Your task to perform on an android device: Open notification settings Image 0: 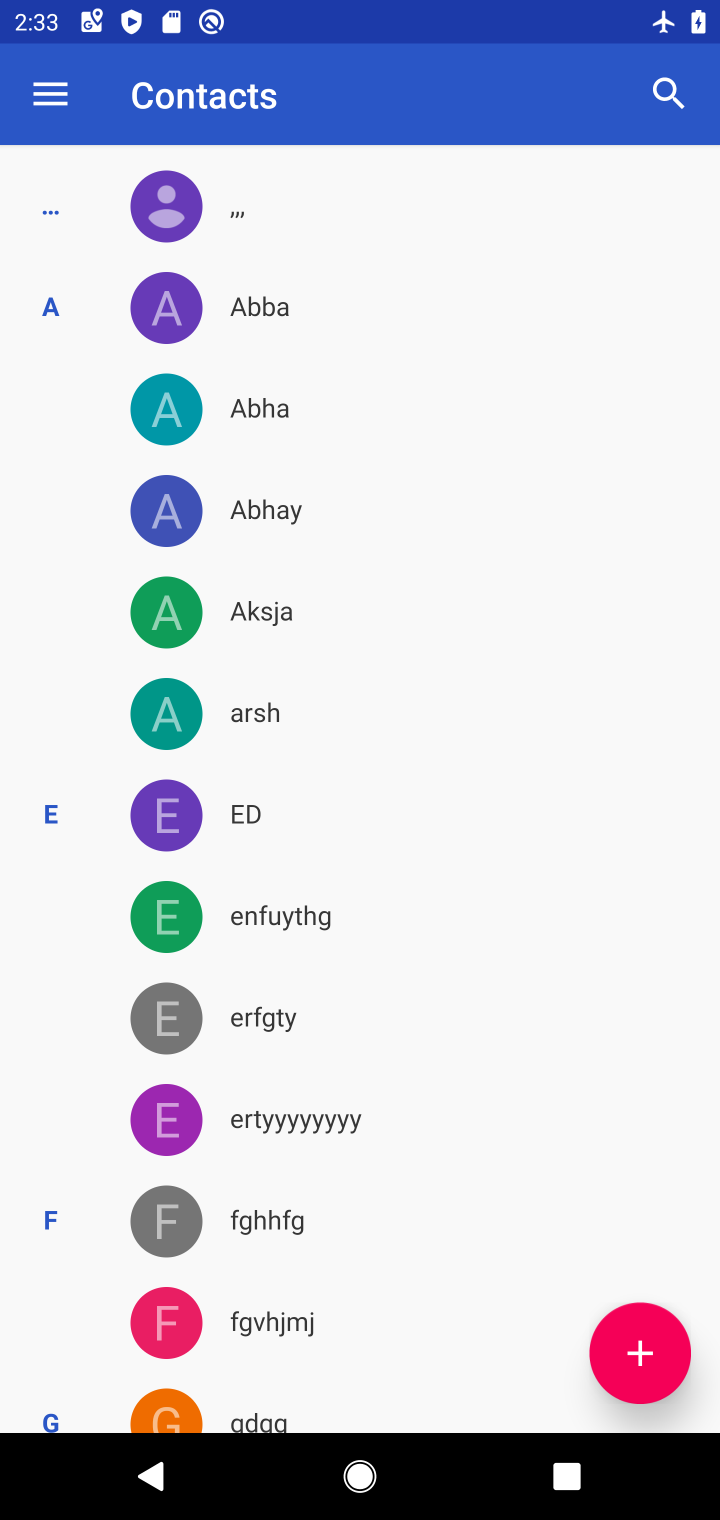
Step 0: press home button
Your task to perform on an android device: Open notification settings Image 1: 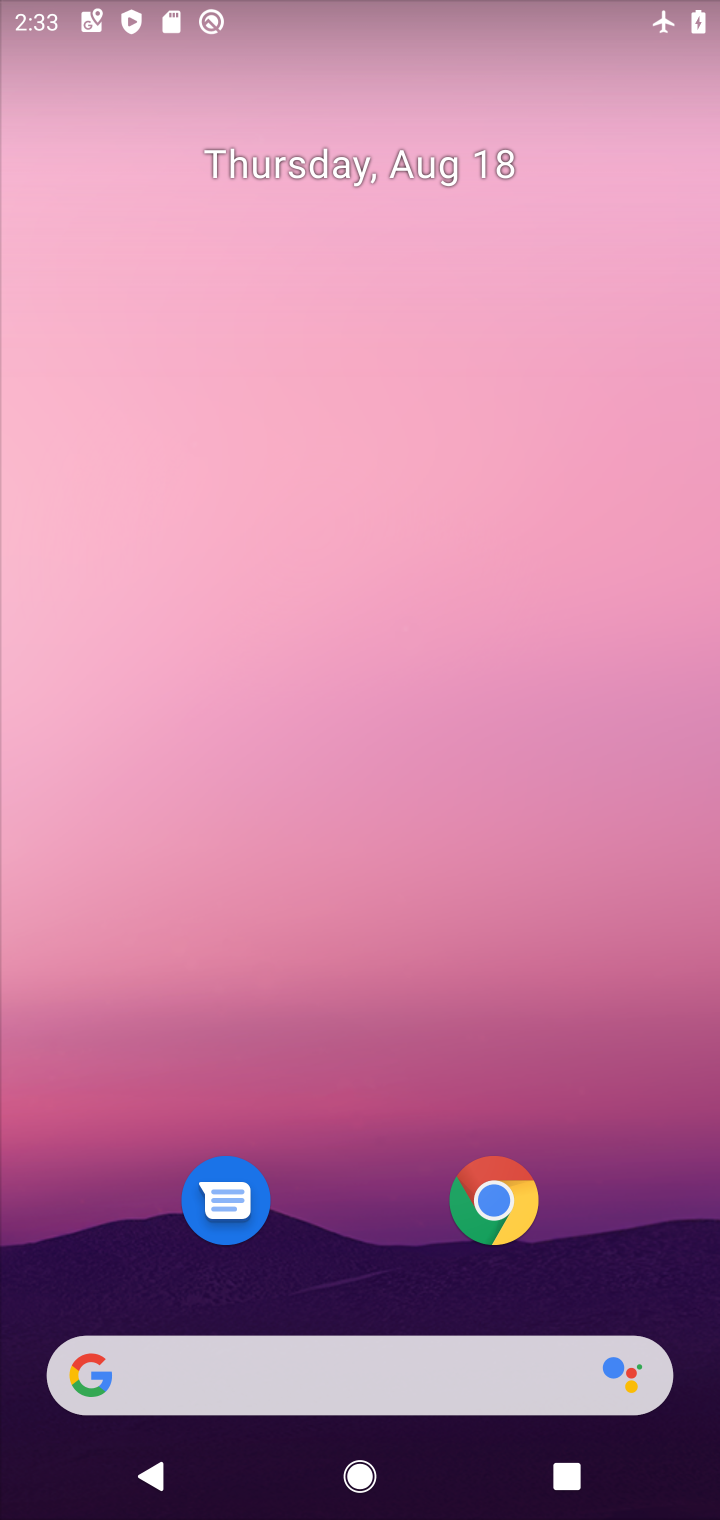
Step 1: drag from (369, 955) to (353, 50)
Your task to perform on an android device: Open notification settings Image 2: 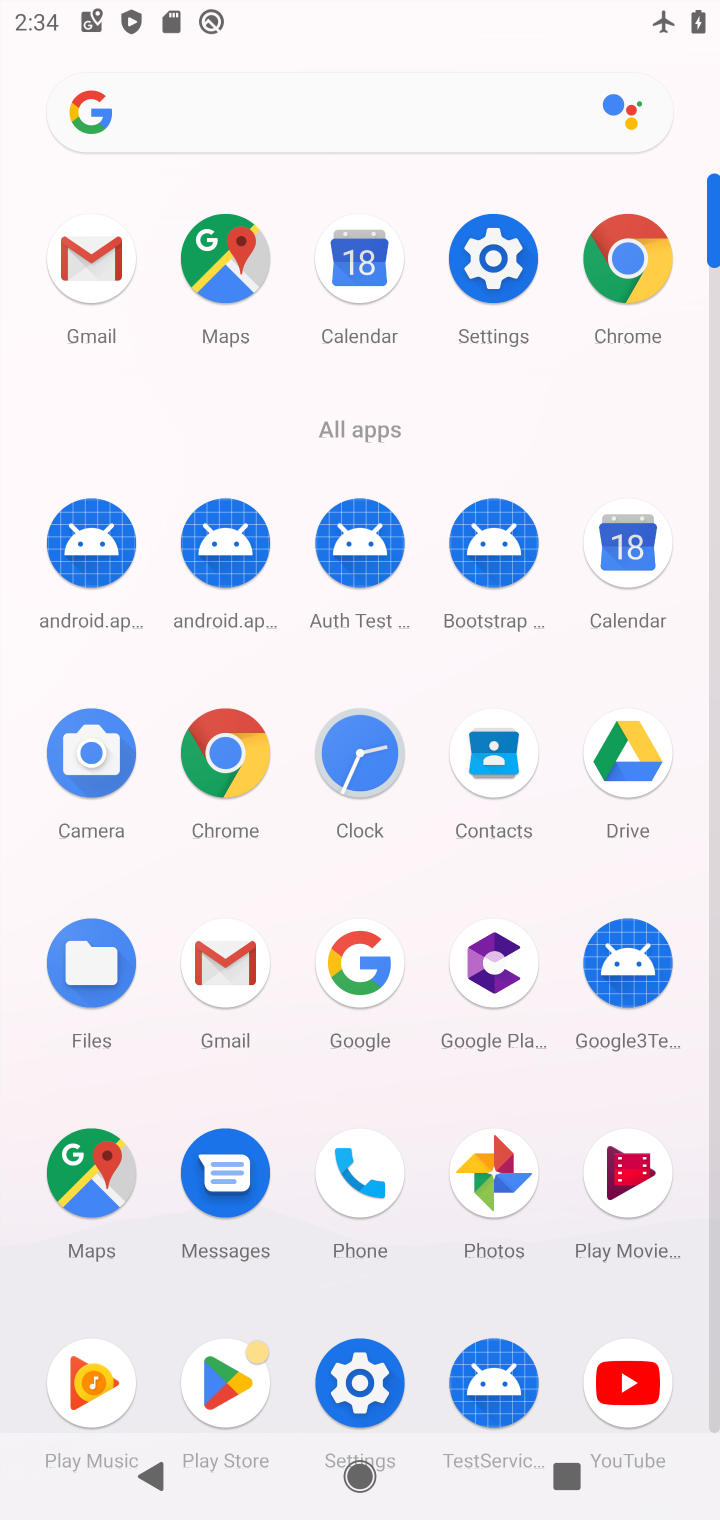
Step 2: click (353, 1396)
Your task to perform on an android device: Open notification settings Image 3: 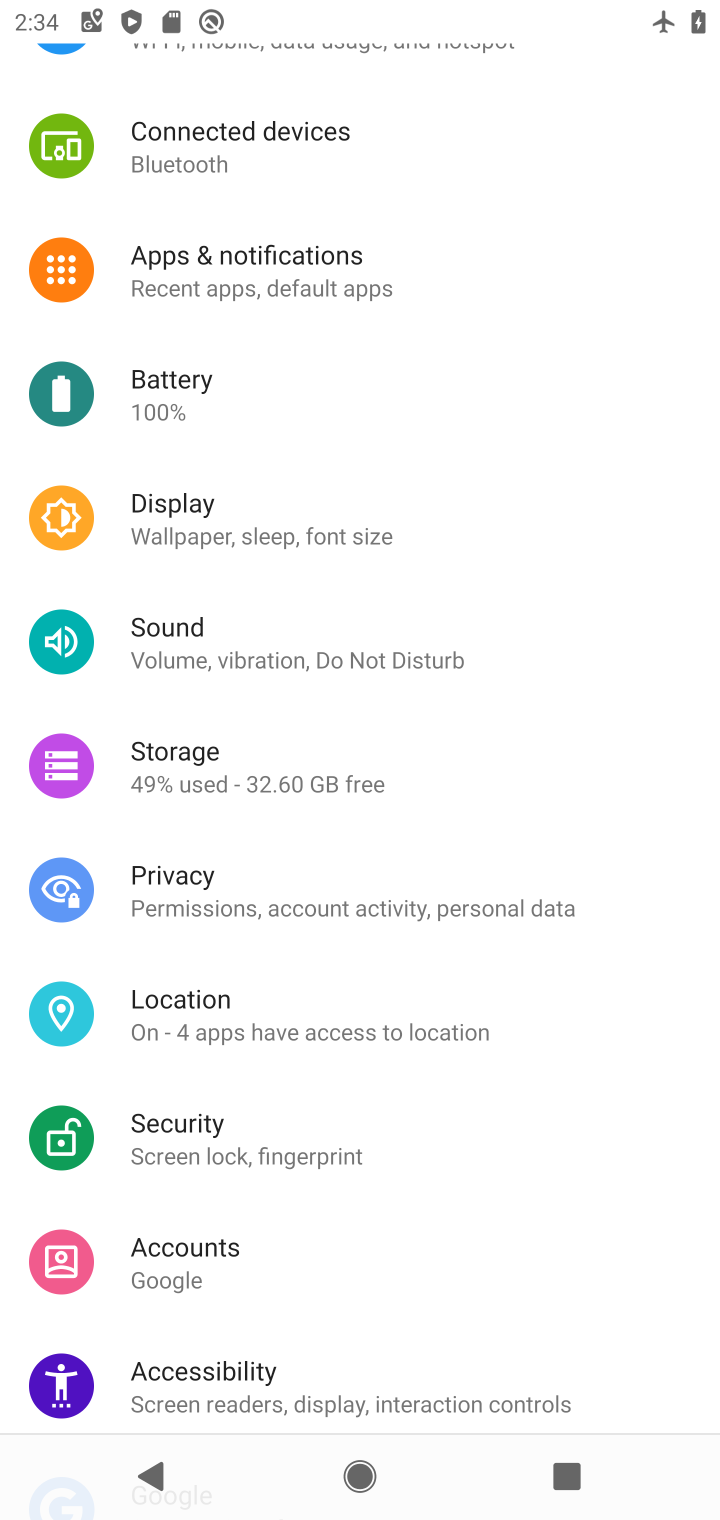
Step 3: click (314, 274)
Your task to perform on an android device: Open notification settings Image 4: 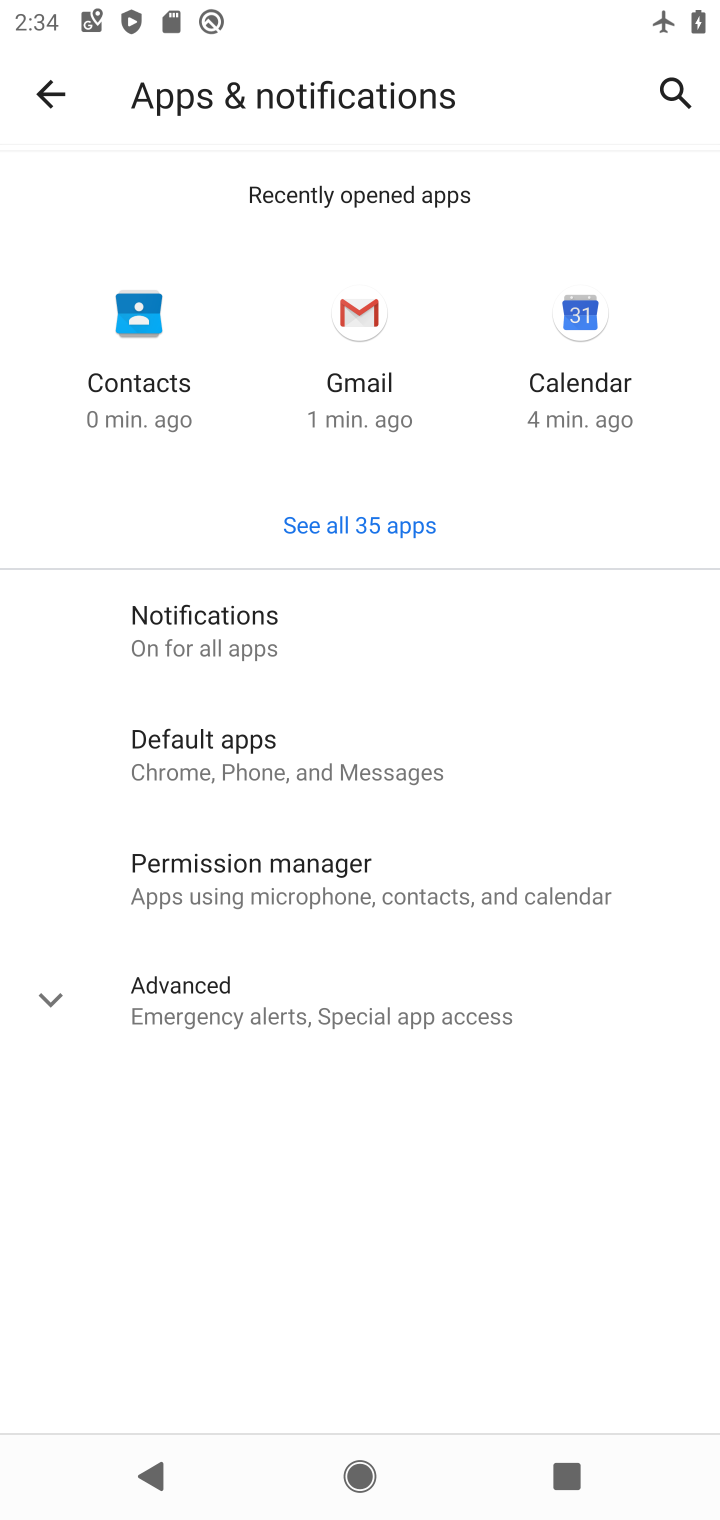
Step 4: click (245, 641)
Your task to perform on an android device: Open notification settings Image 5: 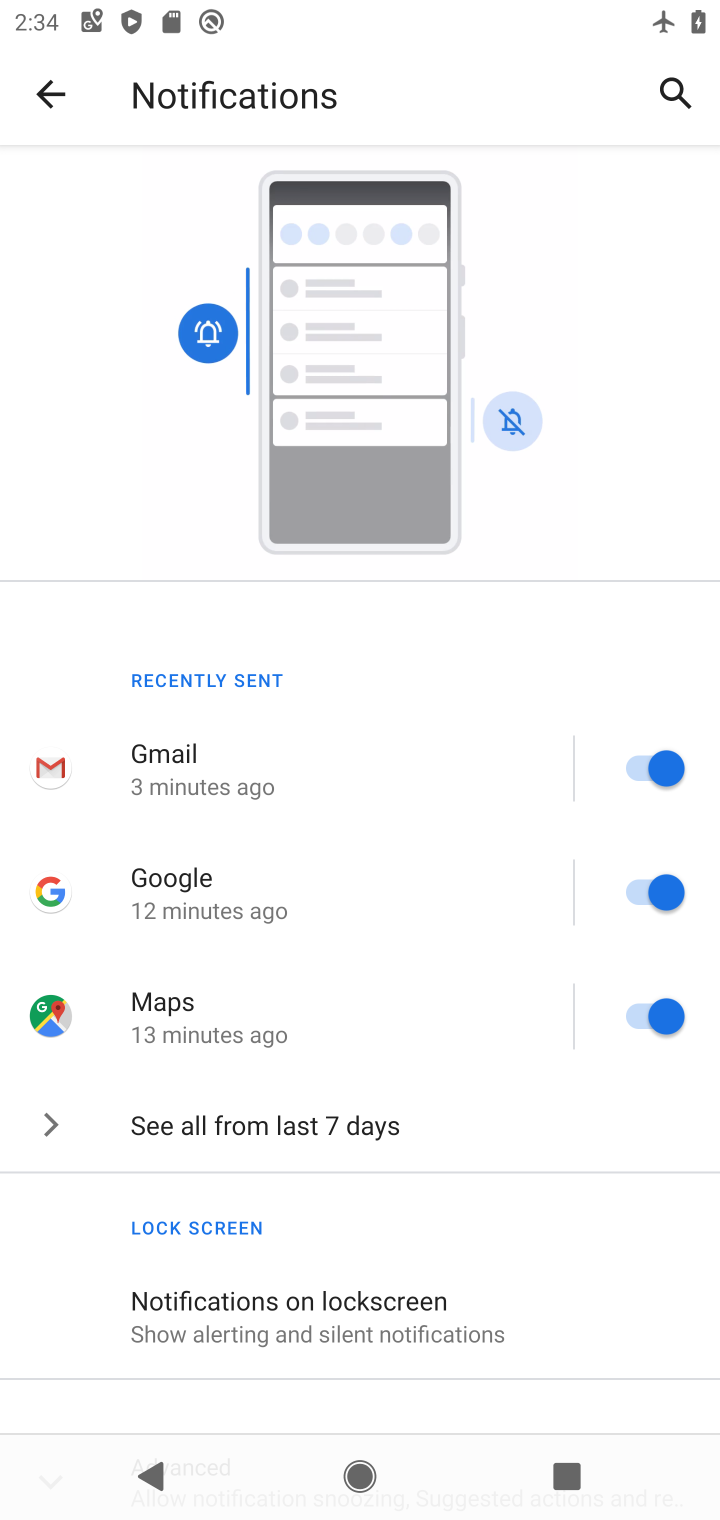
Step 5: task complete